Your task to perform on an android device: open app "Google Docs" Image 0: 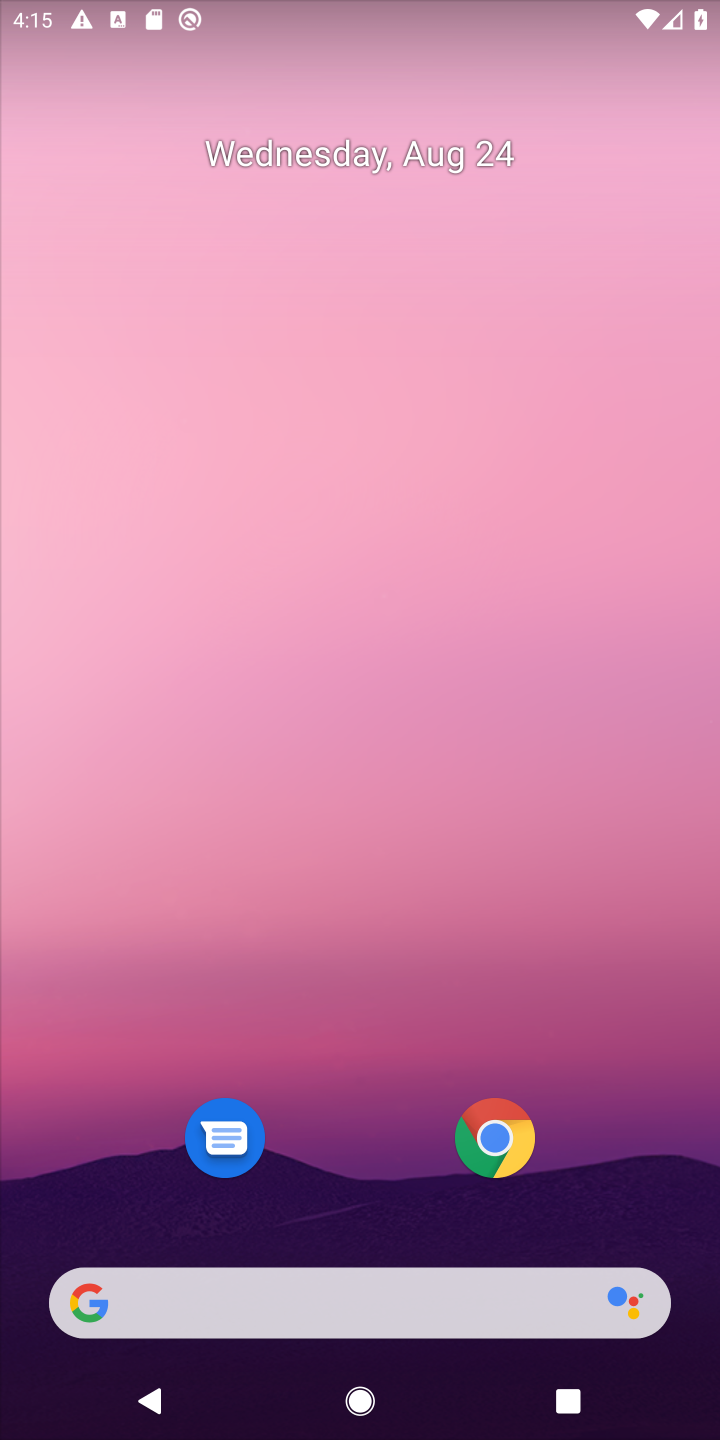
Step 0: drag from (364, 1183) to (362, 114)
Your task to perform on an android device: open app "Google Docs" Image 1: 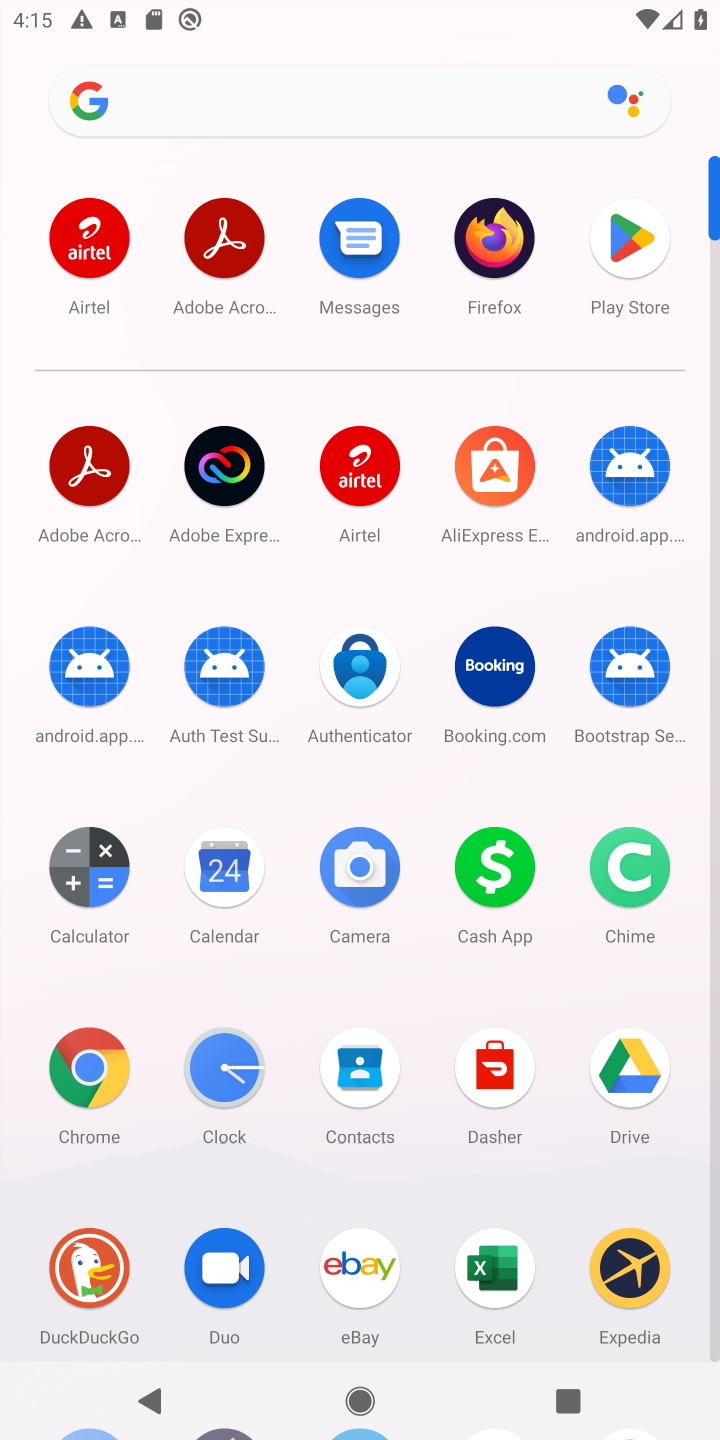
Step 1: click (636, 246)
Your task to perform on an android device: open app "Google Docs" Image 2: 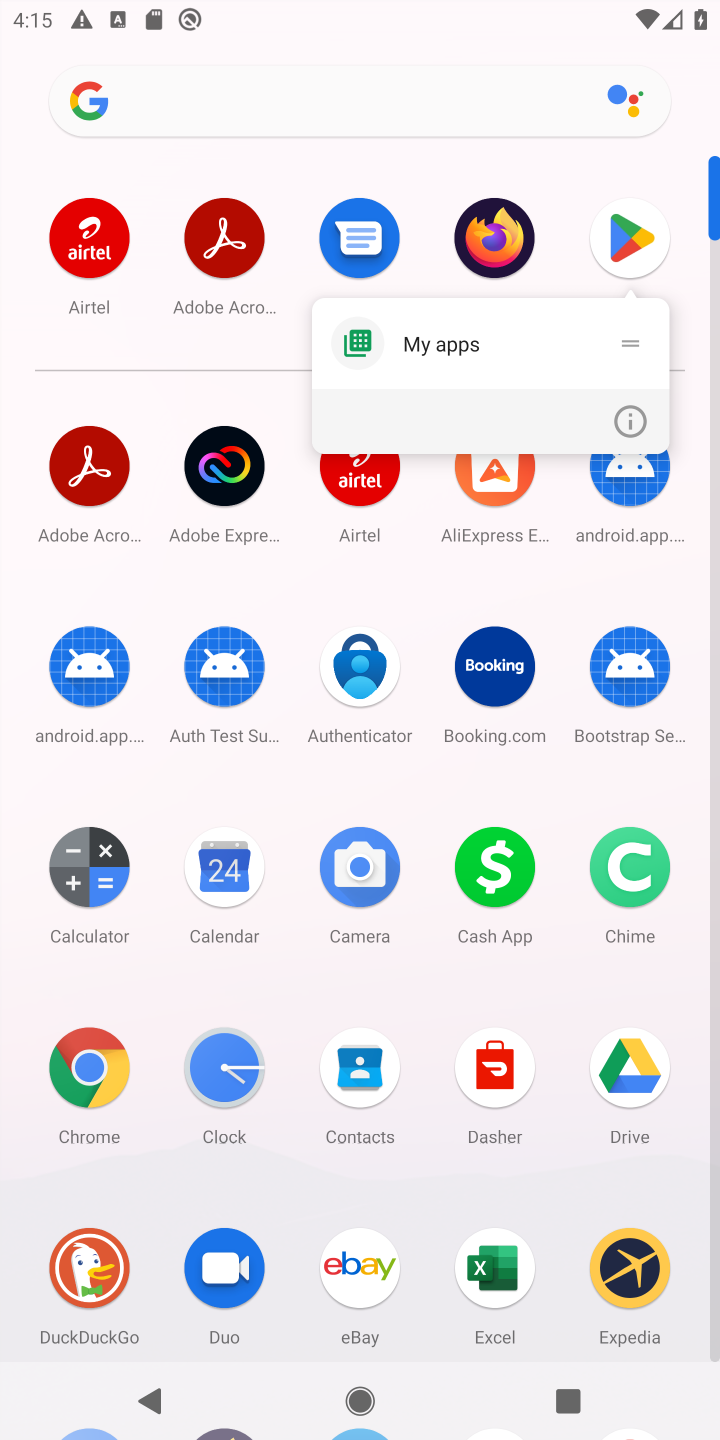
Step 2: click (634, 242)
Your task to perform on an android device: open app "Google Docs" Image 3: 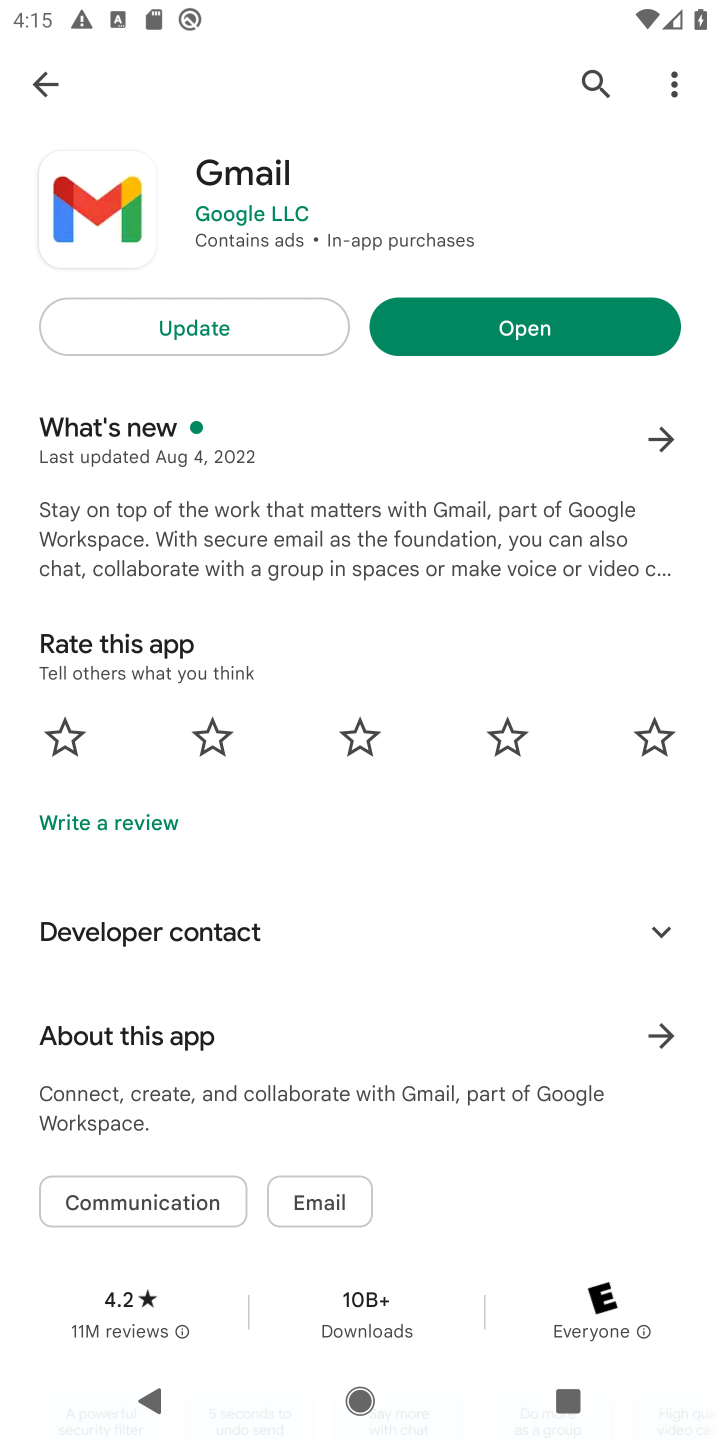
Step 3: click (588, 77)
Your task to perform on an android device: open app "Google Docs" Image 4: 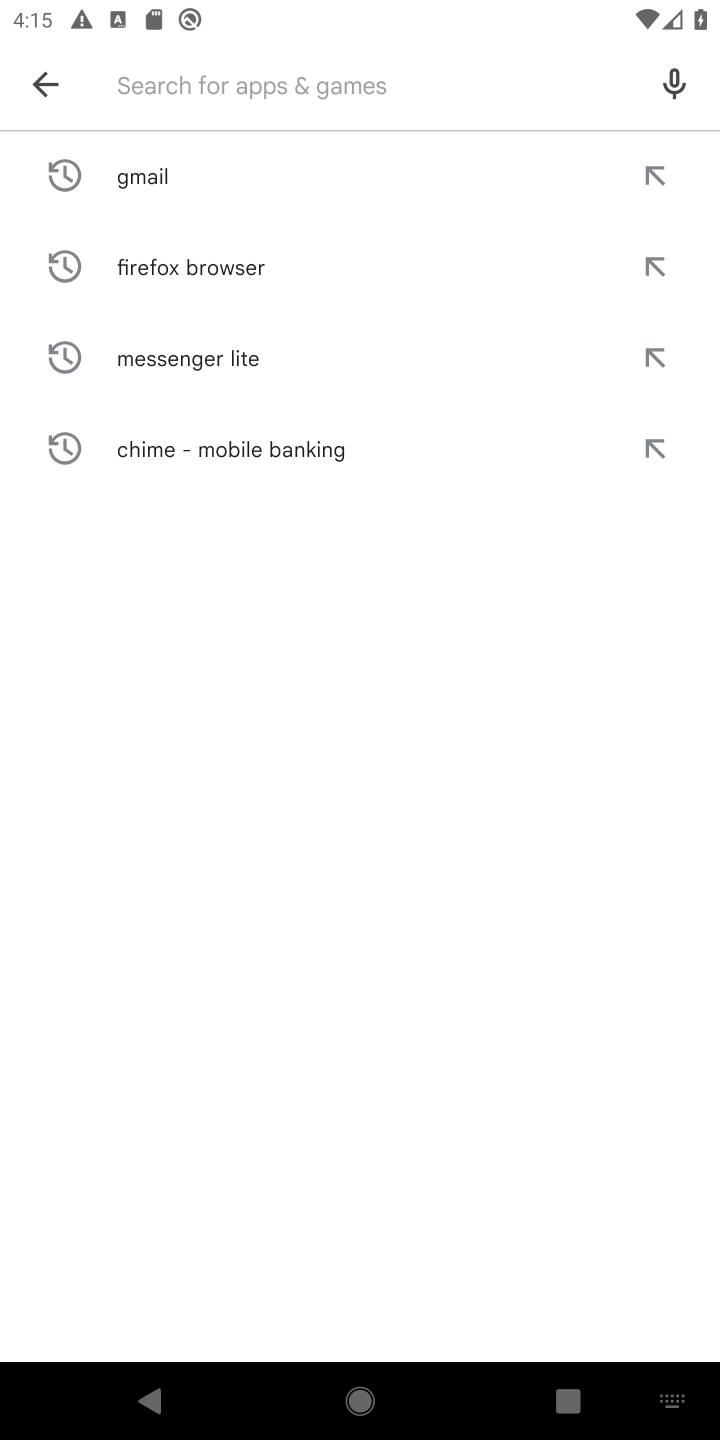
Step 4: type "Google Docs"
Your task to perform on an android device: open app "Google Docs" Image 5: 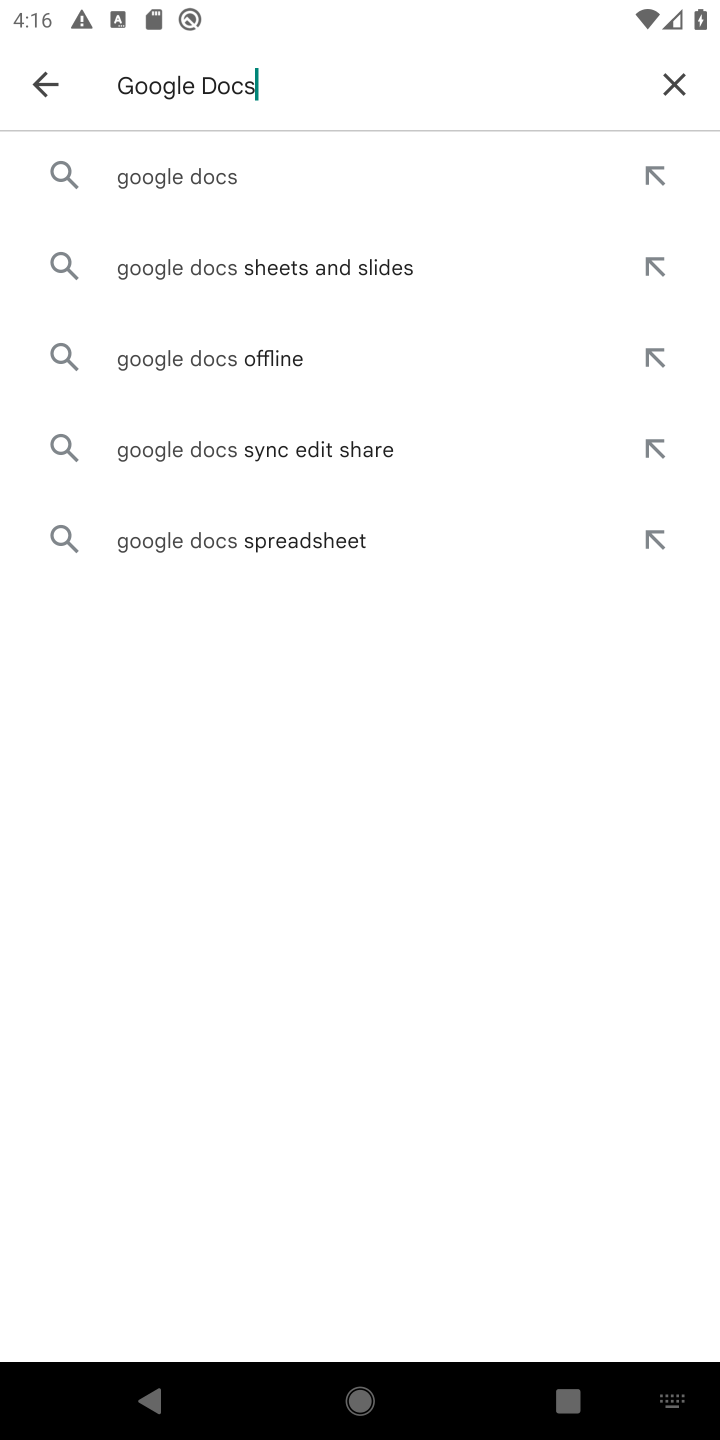
Step 5: click (145, 177)
Your task to perform on an android device: open app "Google Docs" Image 6: 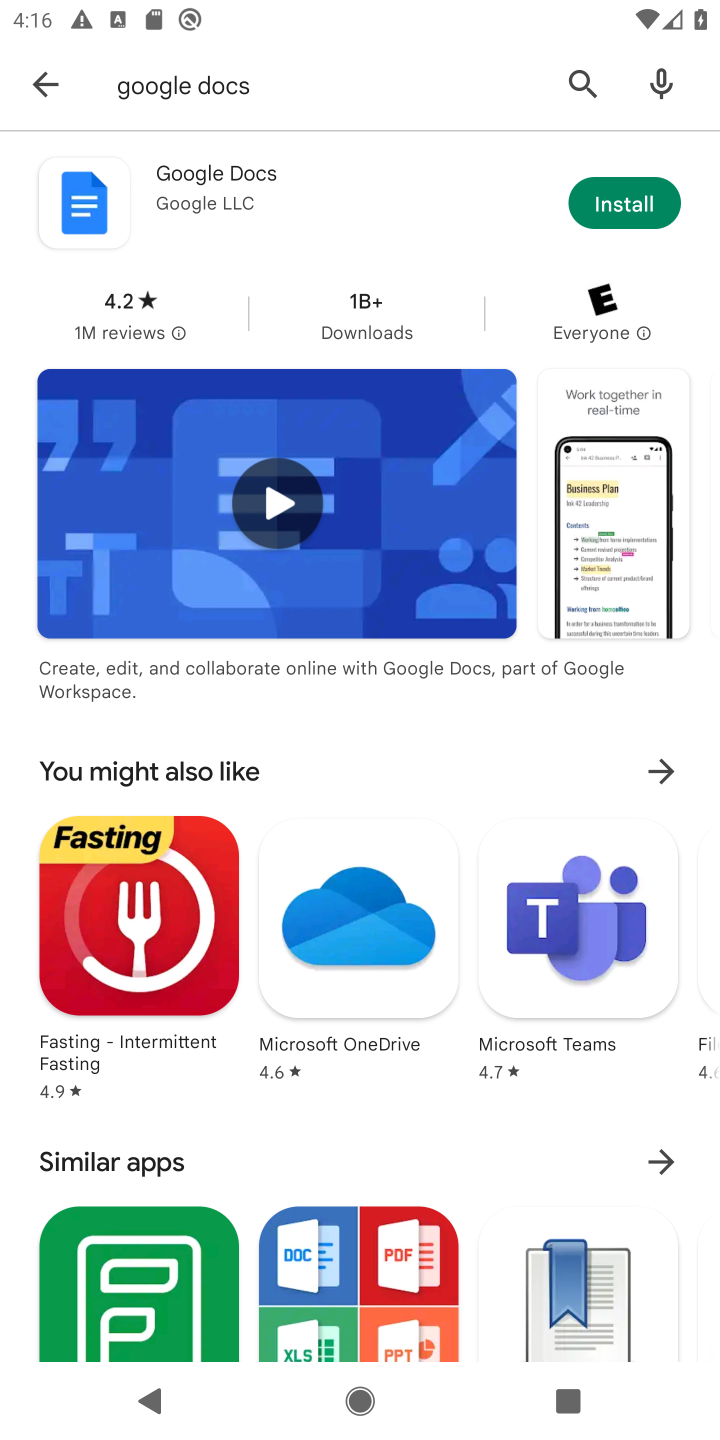
Step 6: task complete